Your task to perform on an android device: What's the weather? Image 0: 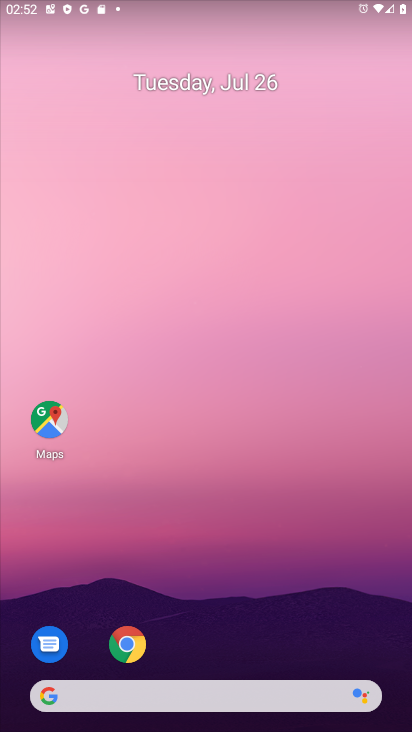
Step 0: click (186, 688)
Your task to perform on an android device: What's the weather? Image 1: 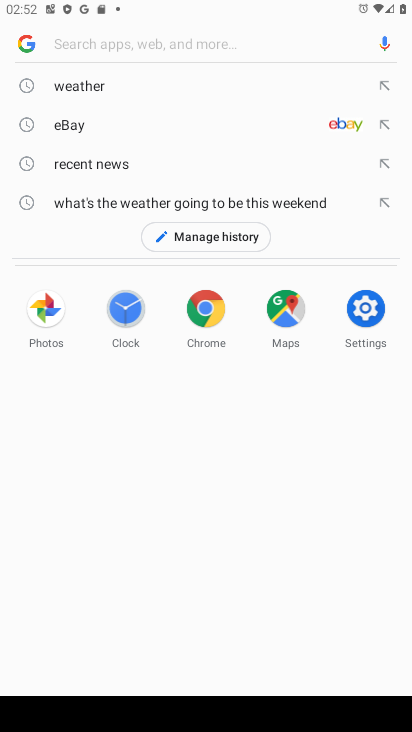
Step 1: click (69, 92)
Your task to perform on an android device: What's the weather? Image 2: 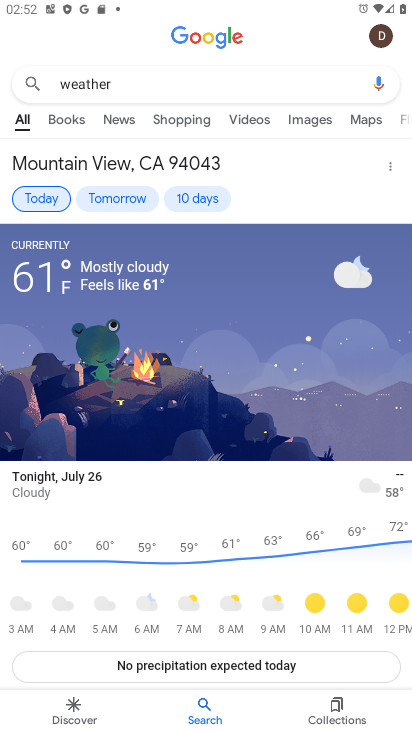
Step 2: task complete